Your task to perform on an android device: turn on javascript in the chrome app Image 0: 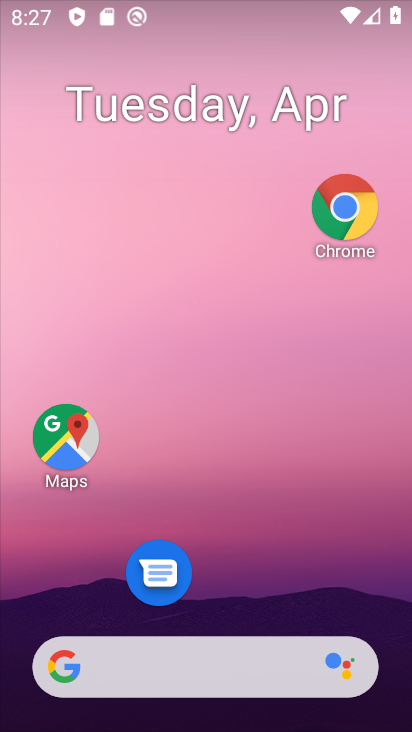
Step 0: drag from (215, 612) to (193, 12)
Your task to perform on an android device: turn on javascript in the chrome app Image 1: 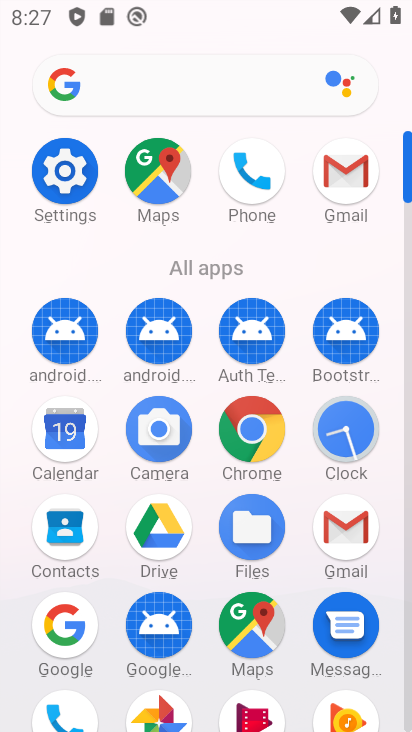
Step 1: click (246, 438)
Your task to perform on an android device: turn on javascript in the chrome app Image 2: 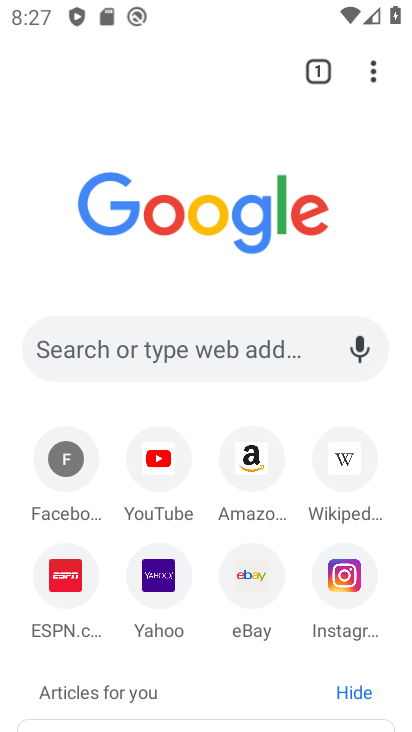
Step 2: click (366, 78)
Your task to perform on an android device: turn on javascript in the chrome app Image 3: 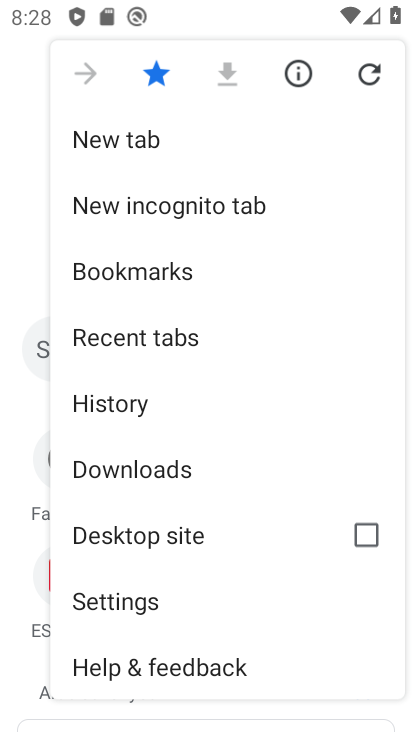
Step 3: click (169, 607)
Your task to perform on an android device: turn on javascript in the chrome app Image 4: 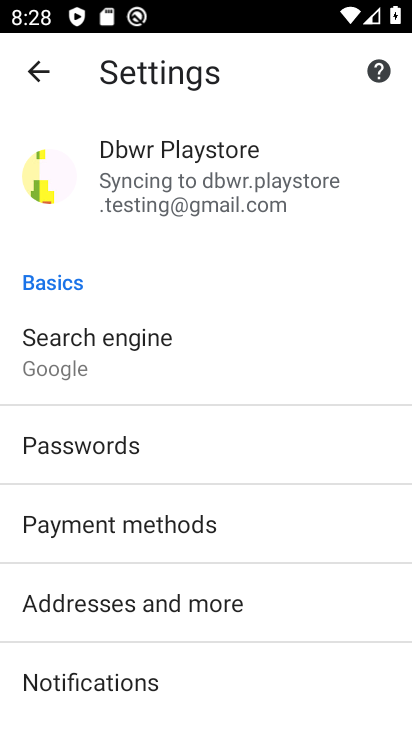
Step 4: drag from (147, 603) to (98, 111)
Your task to perform on an android device: turn on javascript in the chrome app Image 5: 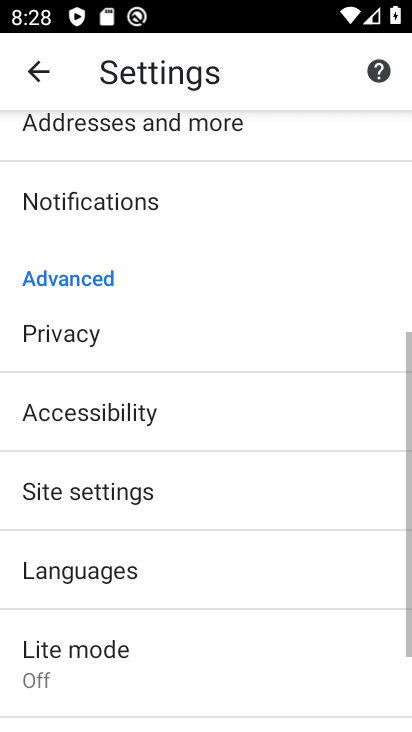
Step 5: click (97, 508)
Your task to perform on an android device: turn on javascript in the chrome app Image 6: 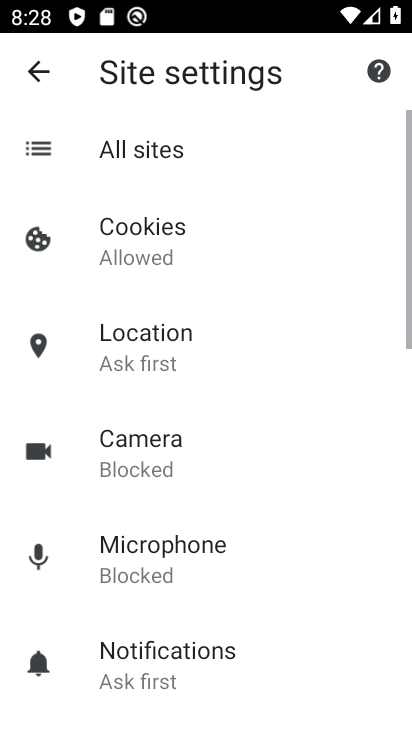
Step 6: drag from (135, 592) to (71, 100)
Your task to perform on an android device: turn on javascript in the chrome app Image 7: 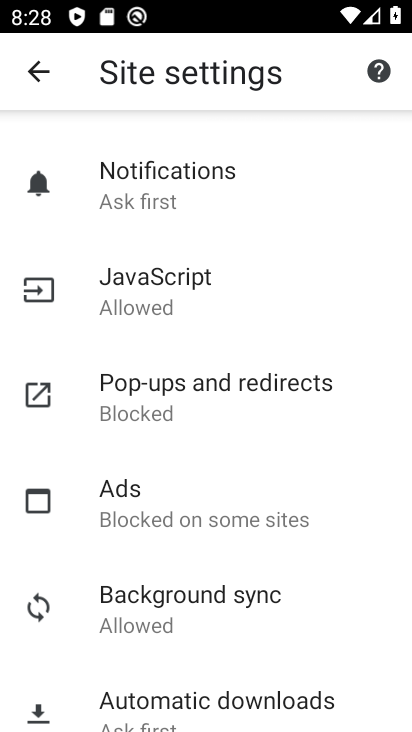
Step 7: click (135, 287)
Your task to perform on an android device: turn on javascript in the chrome app Image 8: 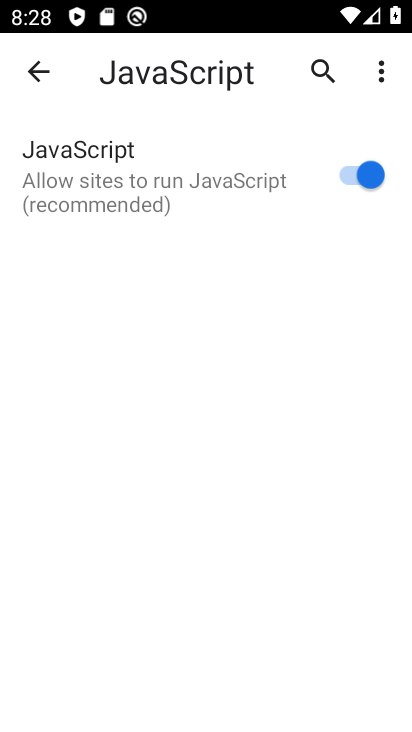
Step 8: task complete